Your task to perform on an android device: allow notifications from all sites in the chrome app Image 0: 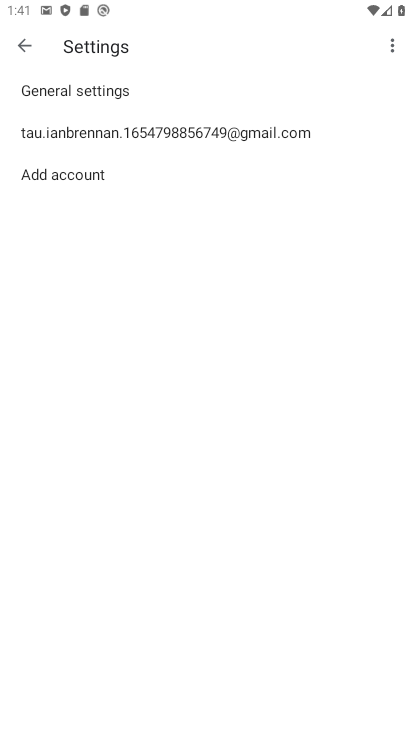
Step 0: press home button
Your task to perform on an android device: allow notifications from all sites in the chrome app Image 1: 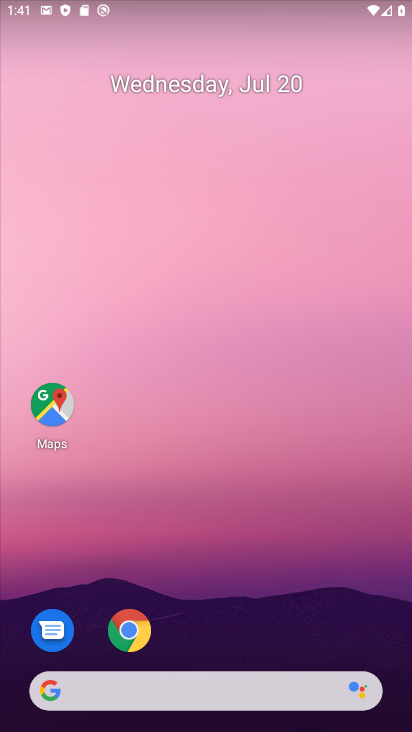
Step 1: click (130, 633)
Your task to perform on an android device: allow notifications from all sites in the chrome app Image 2: 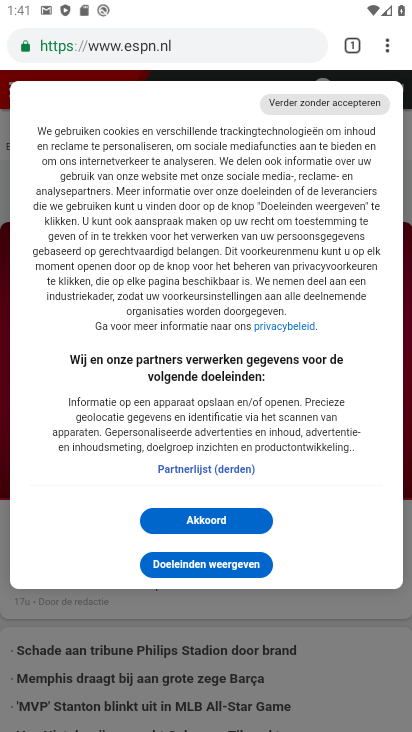
Step 2: click (388, 46)
Your task to perform on an android device: allow notifications from all sites in the chrome app Image 3: 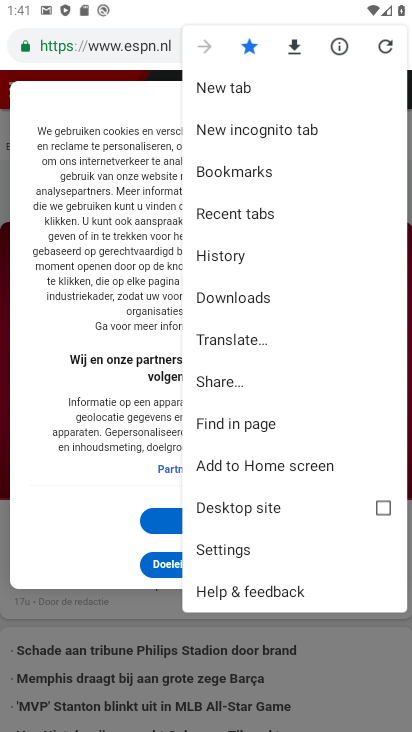
Step 3: click (220, 550)
Your task to perform on an android device: allow notifications from all sites in the chrome app Image 4: 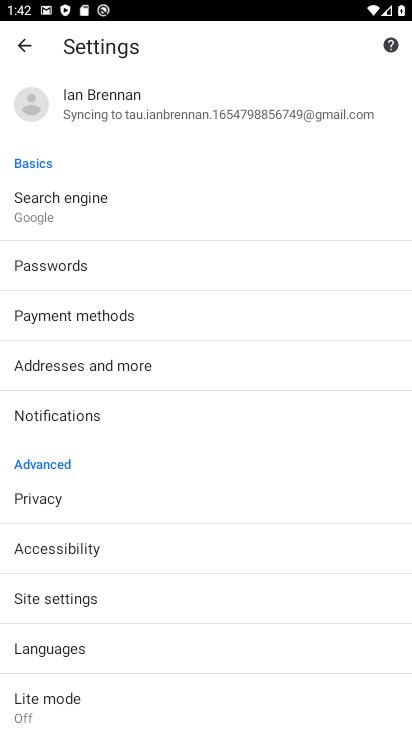
Step 4: click (77, 601)
Your task to perform on an android device: allow notifications from all sites in the chrome app Image 5: 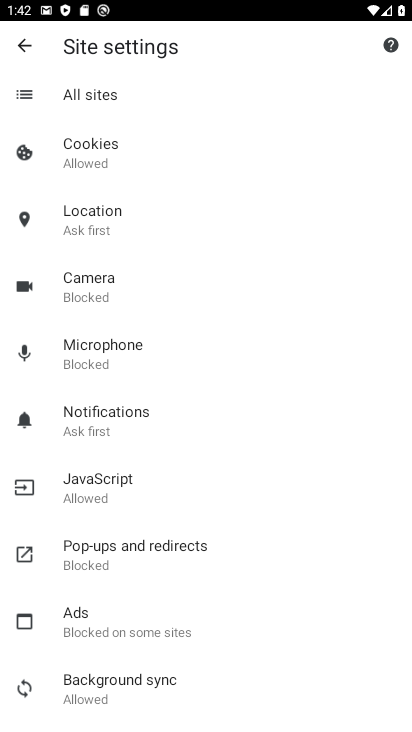
Step 5: click (95, 419)
Your task to perform on an android device: allow notifications from all sites in the chrome app Image 6: 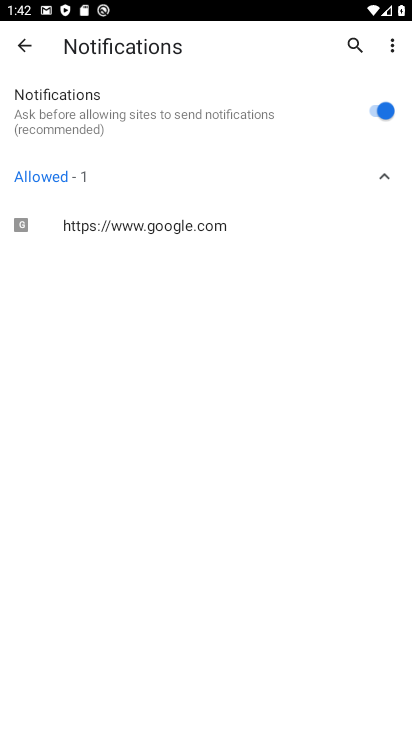
Step 6: task complete